Your task to perform on an android device: Go to settings Image 0: 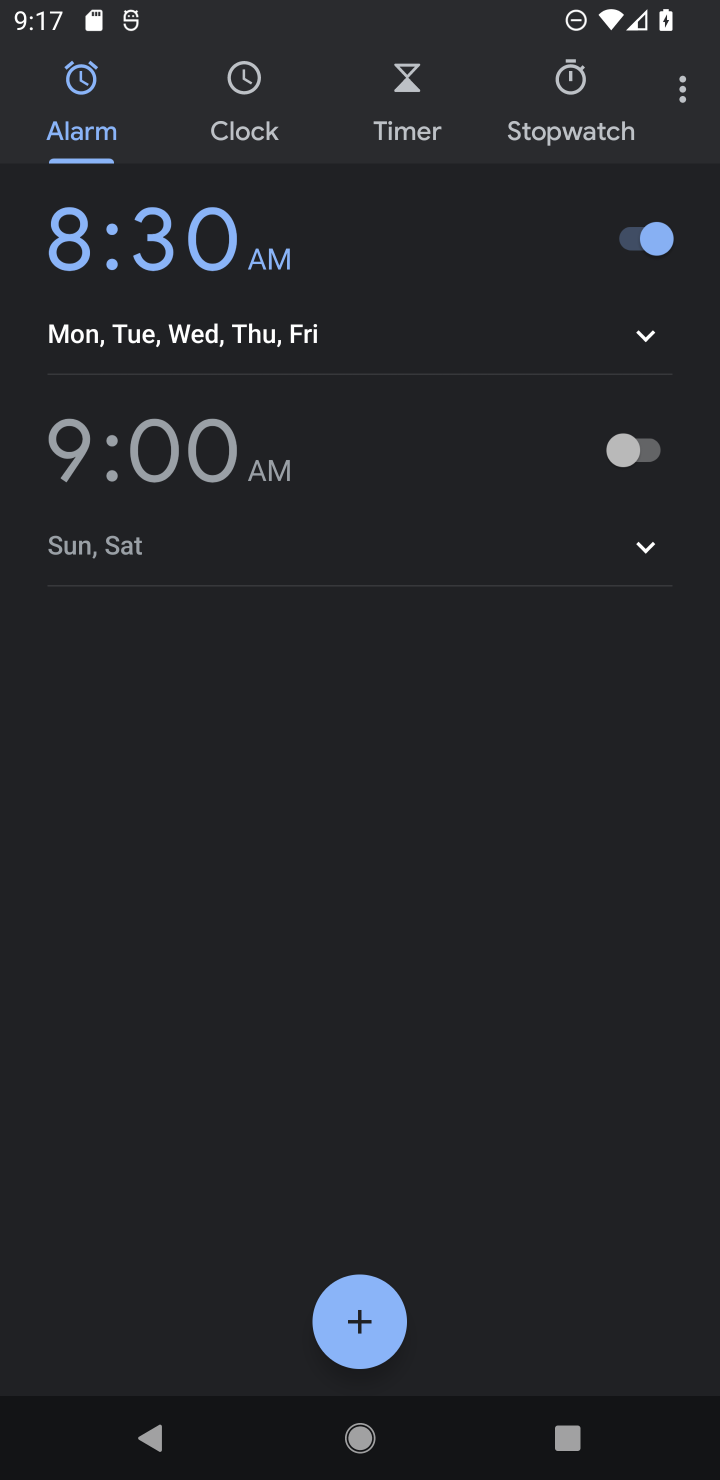
Step 0: press home button
Your task to perform on an android device: Go to settings Image 1: 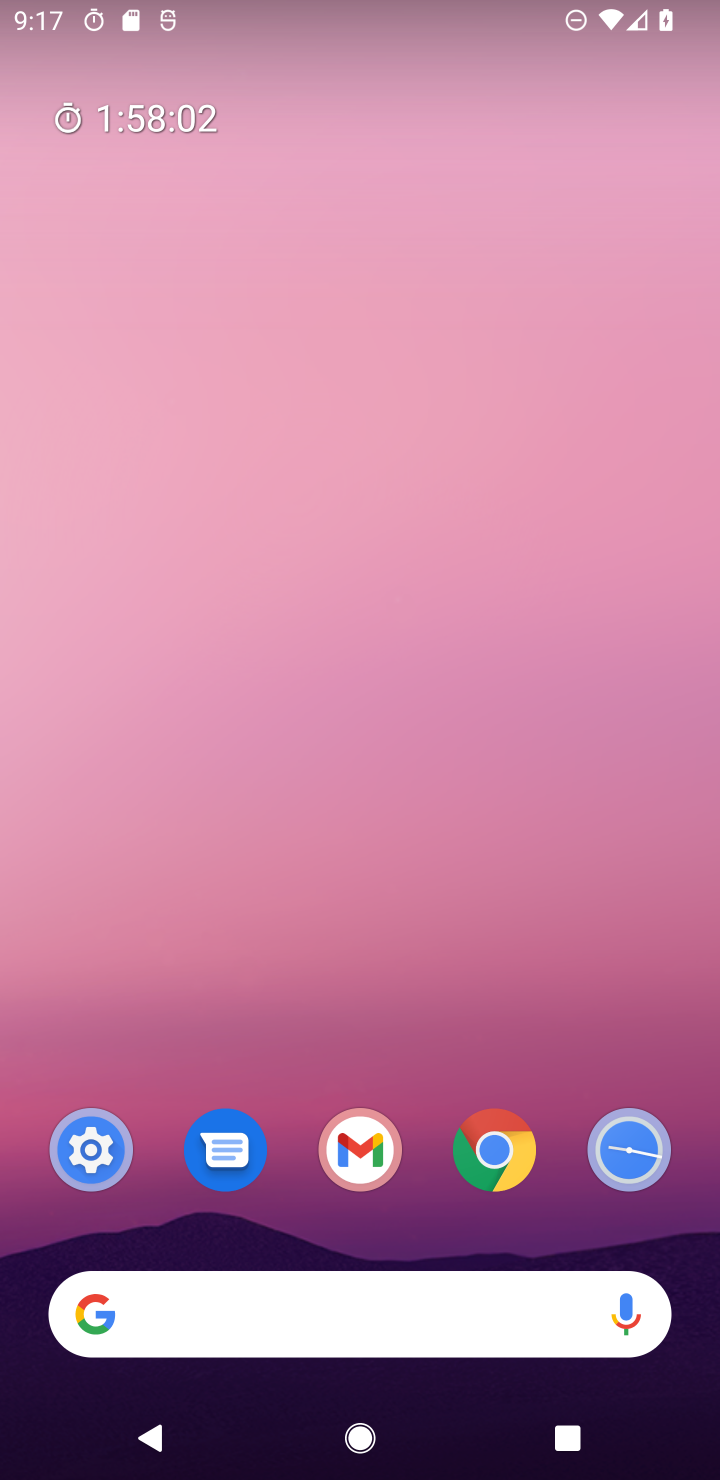
Step 1: drag from (281, 1296) to (400, 10)
Your task to perform on an android device: Go to settings Image 2: 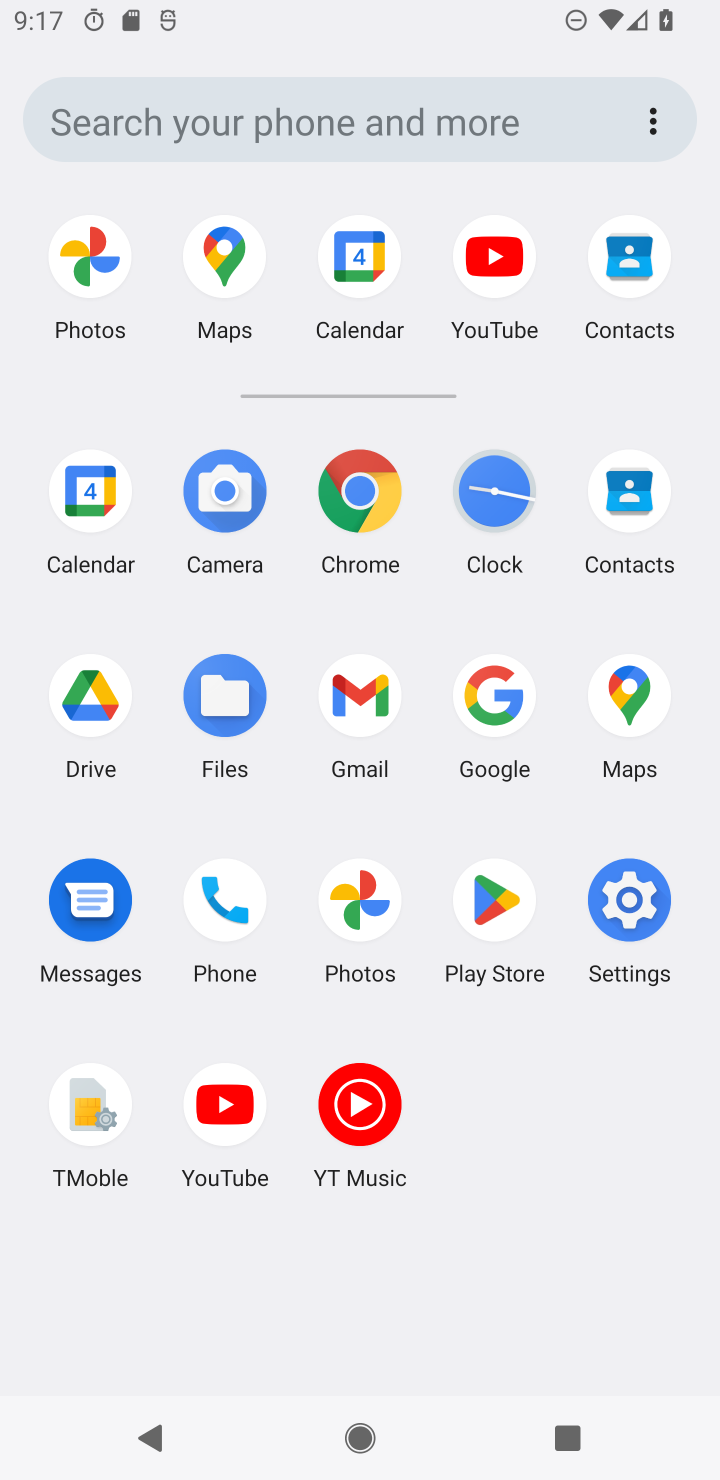
Step 2: click (647, 898)
Your task to perform on an android device: Go to settings Image 3: 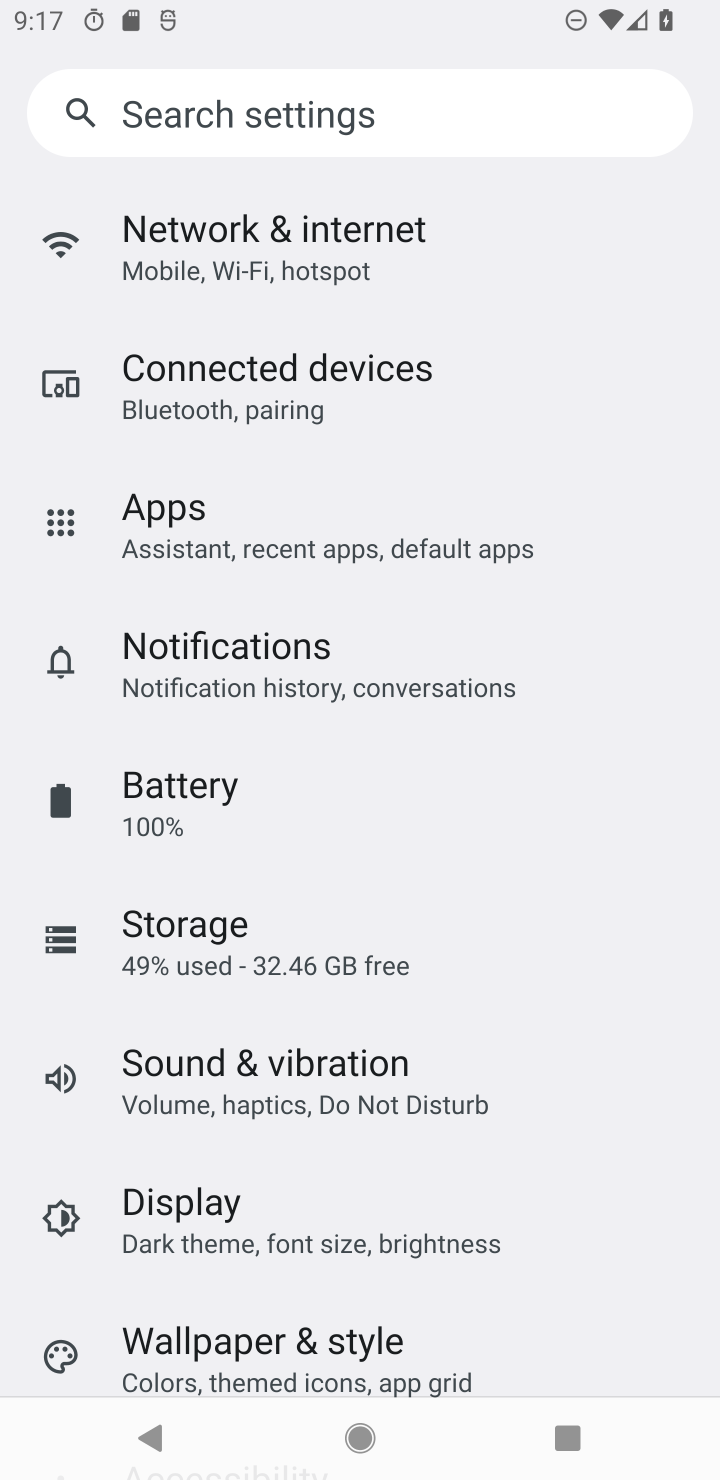
Step 3: task complete